Your task to perform on an android device: Go to location settings Image 0: 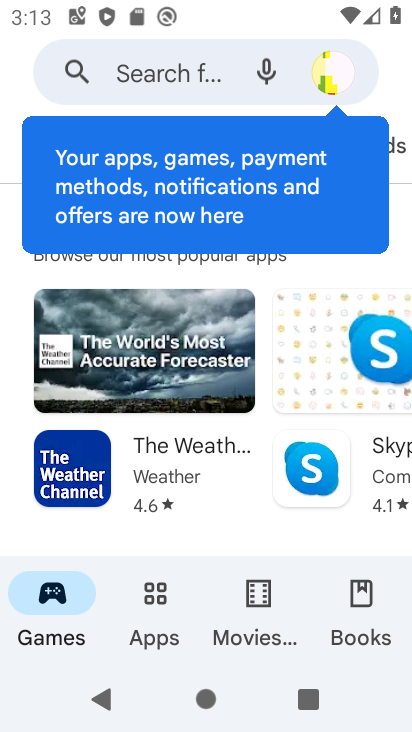
Step 0: press home button
Your task to perform on an android device: Go to location settings Image 1: 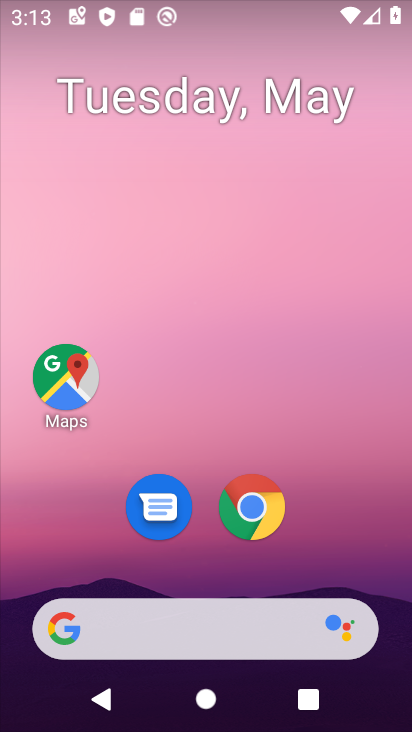
Step 1: drag from (215, 569) to (245, 1)
Your task to perform on an android device: Go to location settings Image 2: 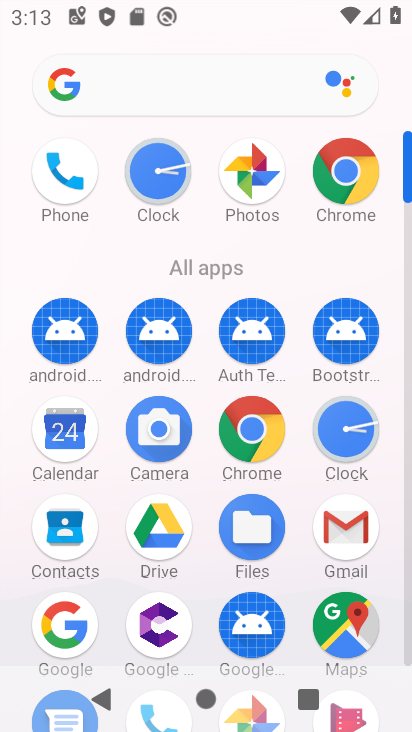
Step 2: drag from (197, 586) to (229, 164)
Your task to perform on an android device: Go to location settings Image 3: 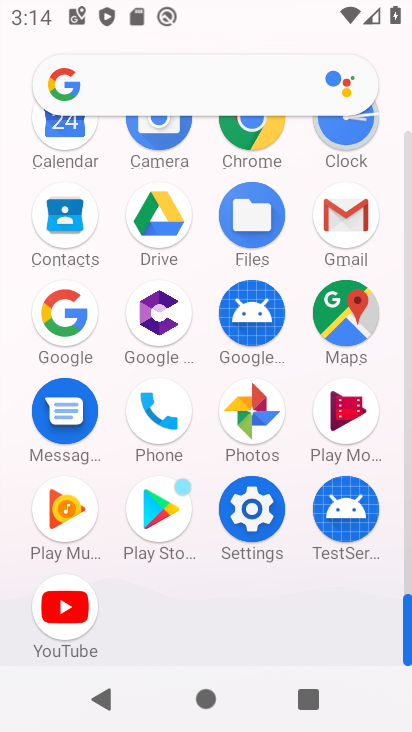
Step 3: click (237, 509)
Your task to perform on an android device: Go to location settings Image 4: 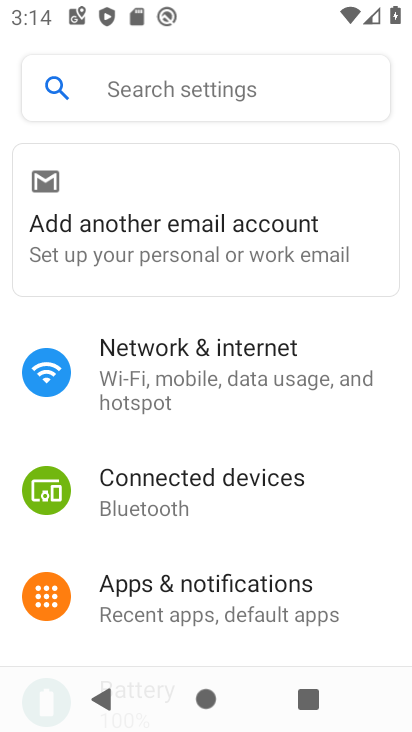
Step 4: drag from (215, 600) to (217, 325)
Your task to perform on an android device: Go to location settings Image 5: 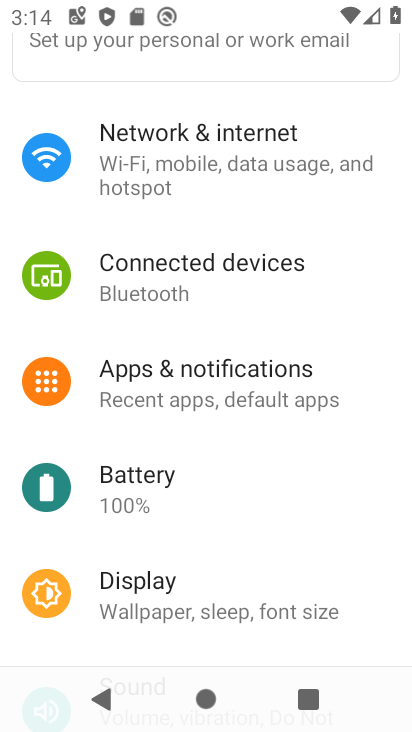
Step 5: drag from (212, 540) to (212, 298)
Your task to perform on an android device: Go to location settings Image 6: 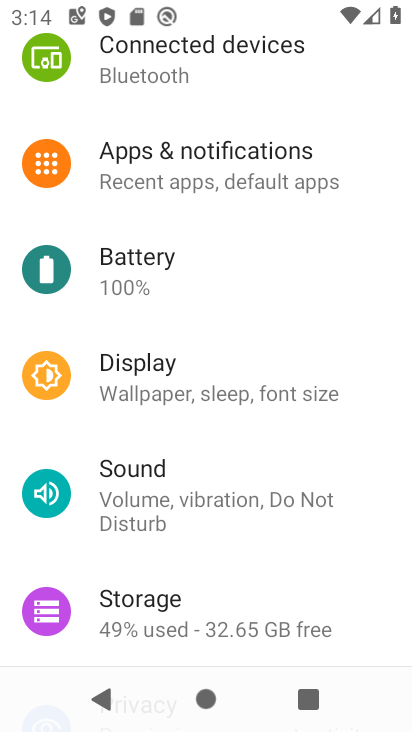
Step 6: drag from (190, 514) to (202, 247)
Your task to perform on an android device: Go to location settings Image 7: 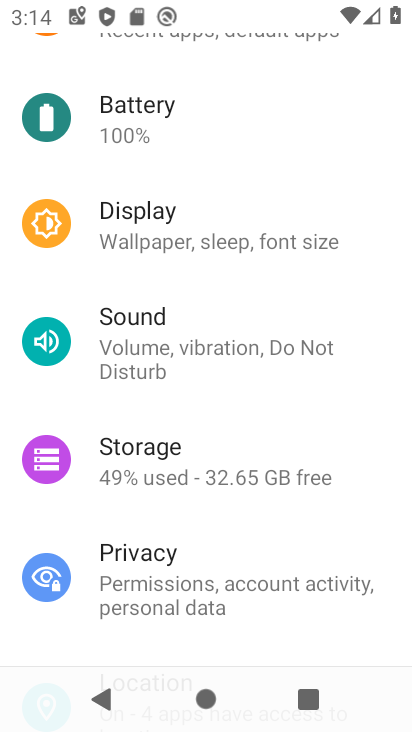
Step 7: drag from (163, 576) to (181, 289)
Your task to perform on an android device: Go to location settings Image 8: 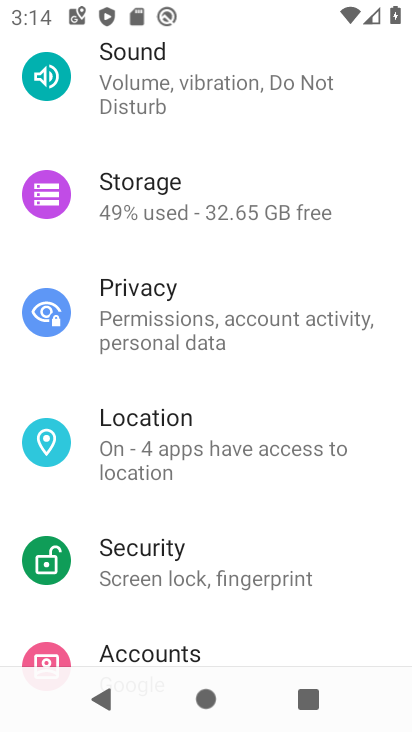
Step 8: click (187, 448)
Your task to perform on an android device: Go to location settings Image 9: 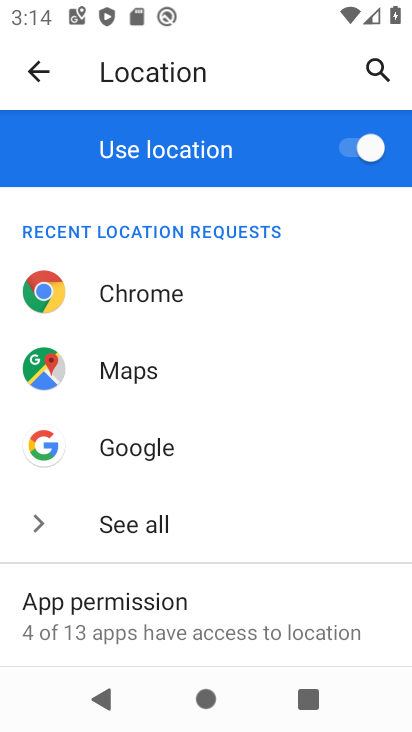
Step 9: task complete